Your task to perform on an android device: Go to Android settings Image 0: 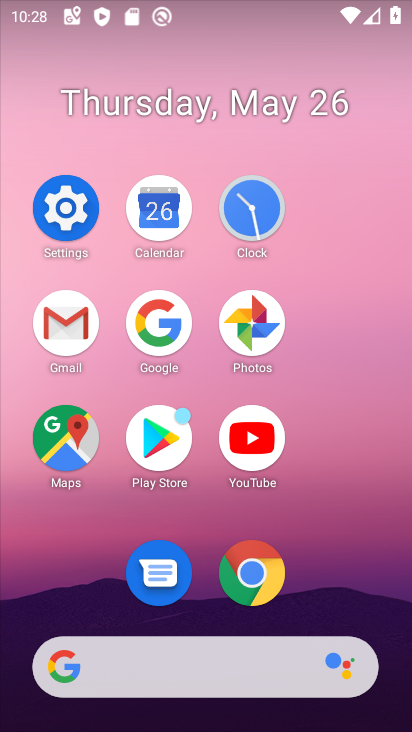
Step 0: click (65, 209)
Your task to perform on an android device: Go to Android settings Image 1: 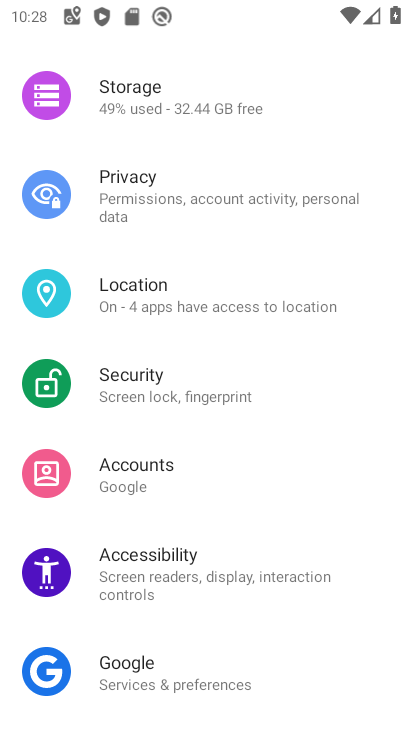
Step 1: task complete